Your task to perform on an android device: delete the emails in spam in the gmail app Image 0: 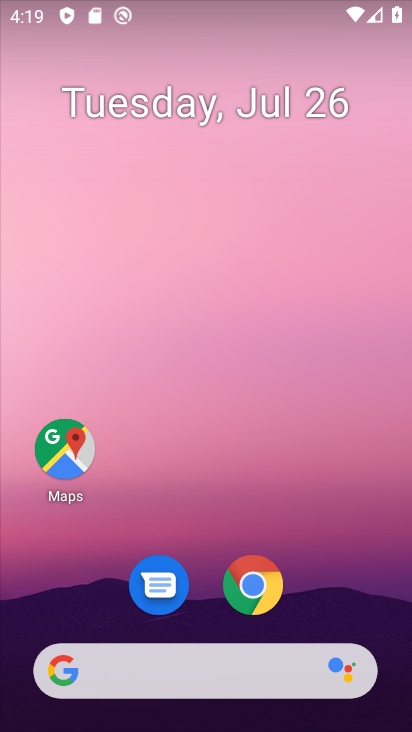
Step 0: drag from (345, 580) to (302, 24)
Your task to perform on an android device: delete the emails in spam in the gmail app Image 1: 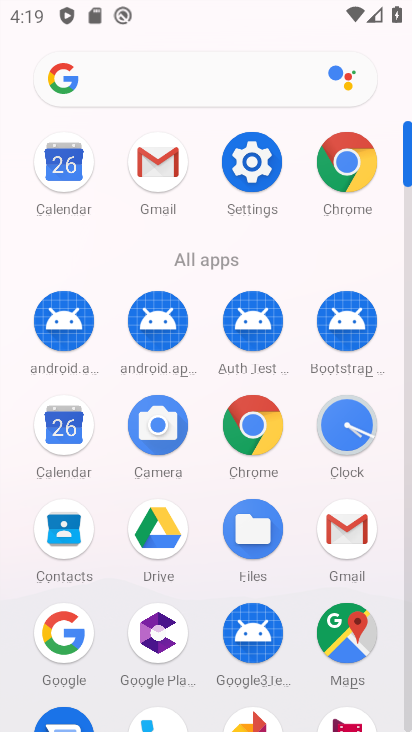
Step 1: click (165, 160)
Your task to perform on an android device: delete the emails in spam in the gmail app Image 2: 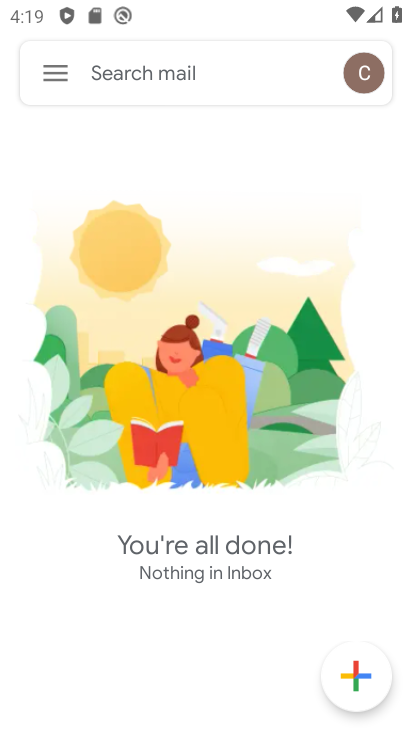
Step 2: click (54, 74)
Your task to perform on an android device: delete the emails in spam in the gmail app Image 3: 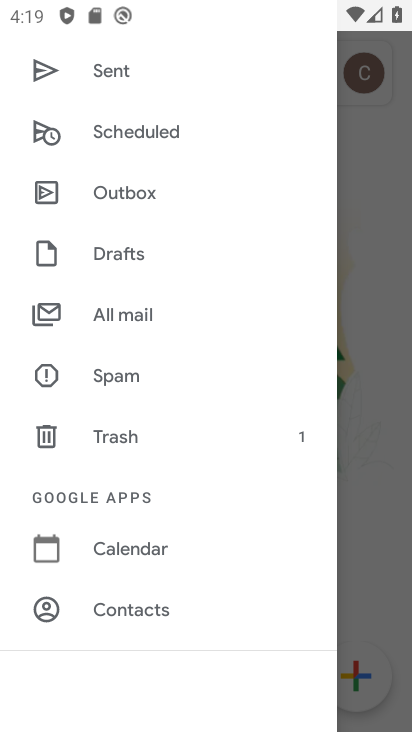
Step 3: click (118, 363)
Your task to perform on an android device: delete the emails in spam in the gmail app Image 4: 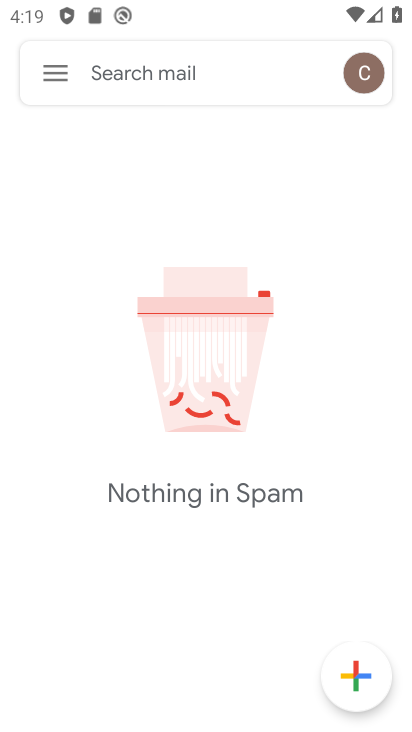
Step 4: task complete